Your task to perform on an android device: turn off priority inbox in the gmail app Image 0: 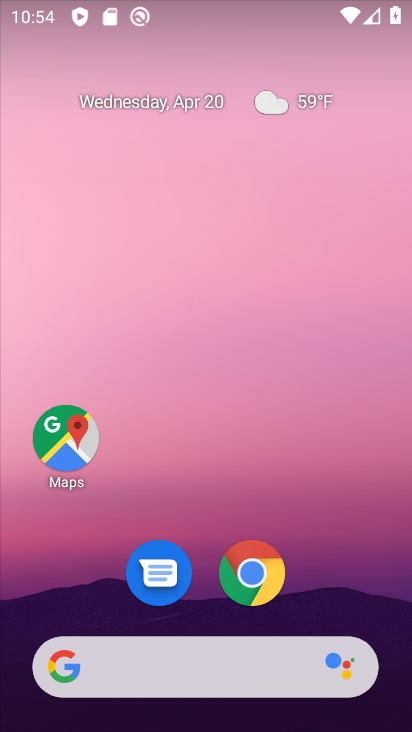
Step 0: drag from (406, 520) to (411, 130)
Your task to perform on an android device: turn off priority inbox in the gmail app Image 1: 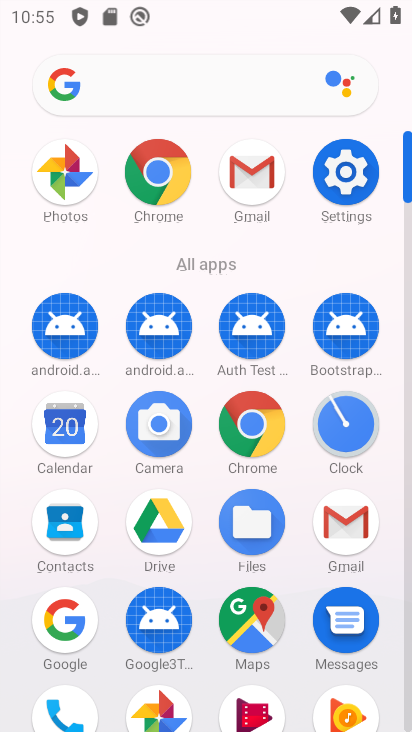
Step 1: click (248, 180)
Your task to perform on an android device: turn off priority inbox in the gmail app Image 2: 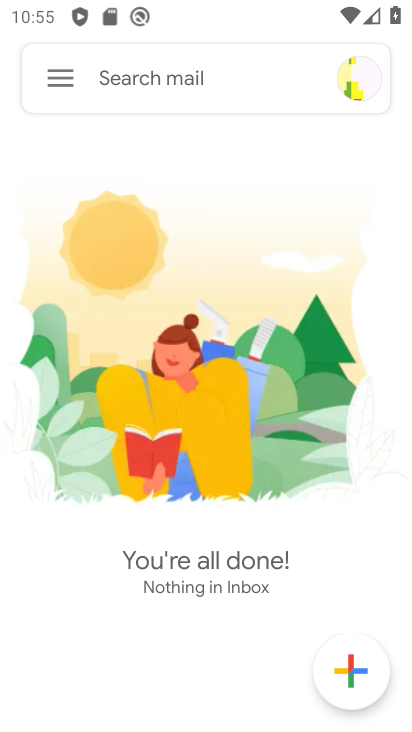
Step 2: click (54, 79)
Your task to perform on an android device: turn off priority inbox in the gmail app Image 3: 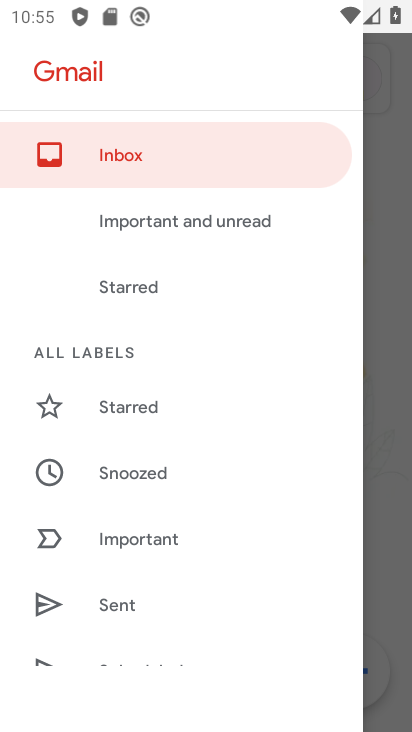
Step 3: drag from (282, 521) to (252, 162)
Your task to perform on an android device: turn off priority inbox in the gmail app Image 4: 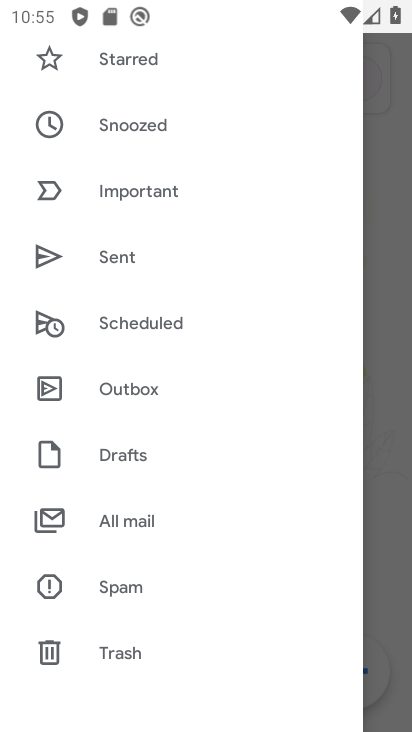
Step 4: drag from (193, 562) to (176, 193)
Your task to perform on an android device: turn off priority inbox in the gmail app Image 5: 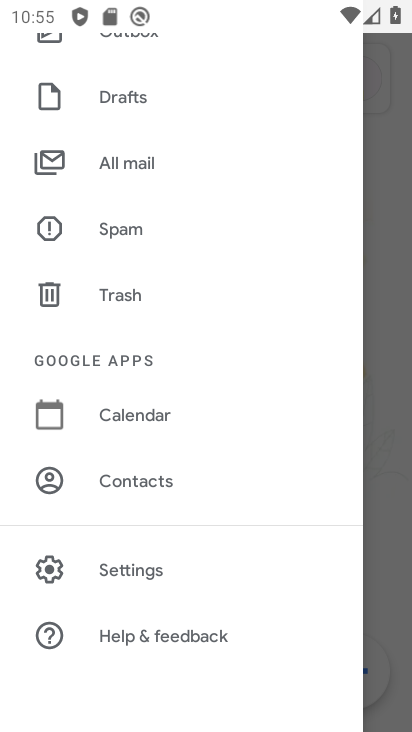
Step 5: click (129, 570)
Your task to perform on an android device: turn off priority inbox in the gmail app Image 6: 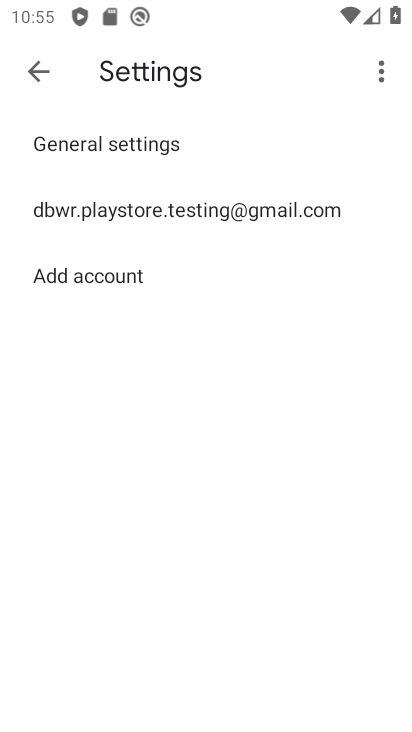
Step 6: click (92, 212)
Your task to perform on an android device: turn off priority inbox in the gmail app Image 7: 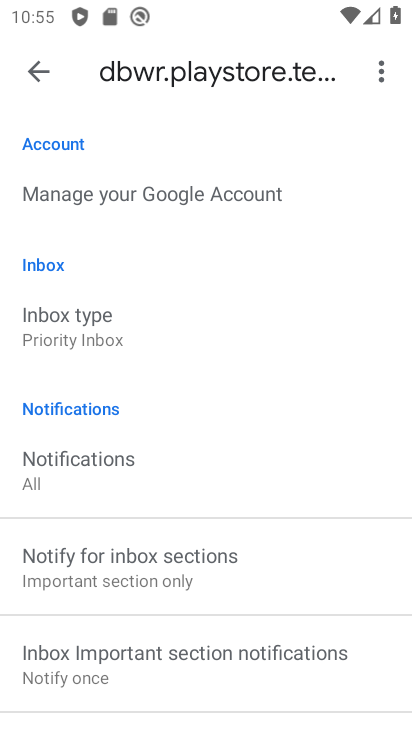
Step 7: click (49, 333)
Your task to perform on an android device: turn off priority inbox in the gmail app Image 8: 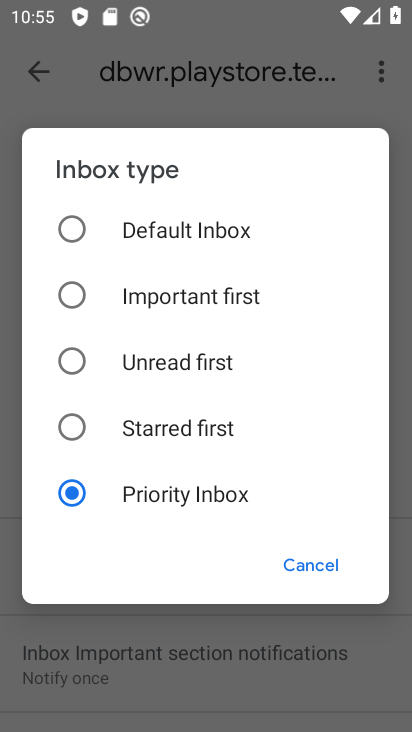
Step 8: click (70, 233)
Your task to perform on an android device: turn off priority inbox in the gmail app Image 9: 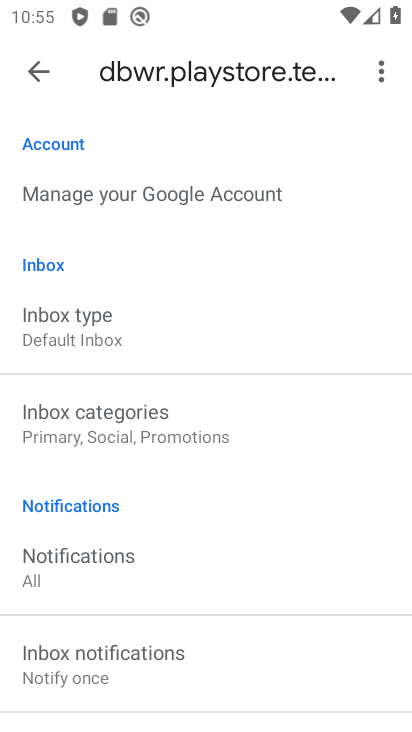
Step 9: task complete